Your task to perform on an android device: allow cookies in the chrome app Image 0: 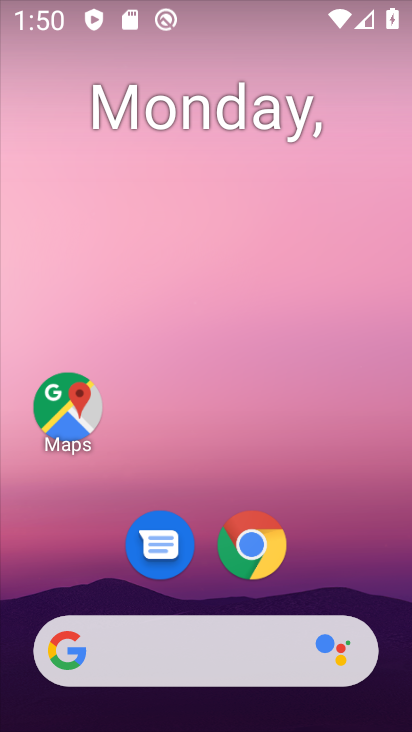
Step 0: click (257, 544)
Your task to perform on an android device: allow cookies in the chrome app Image 1: 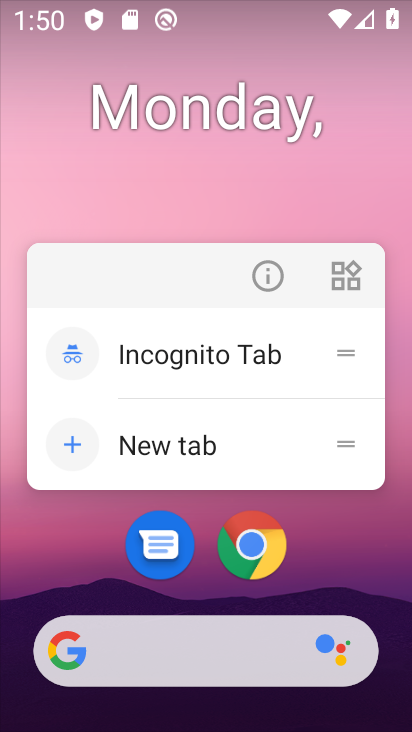
Step 1: click (258, 543)
Your task to perform on an android device: allow cookies in the chrome app Image 2: 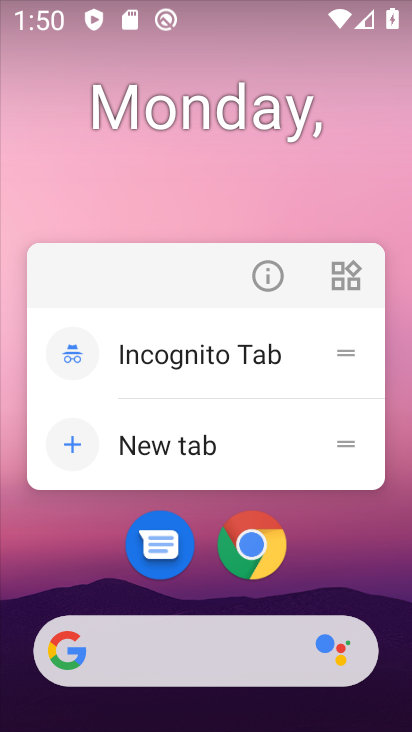
Step 2: click (248, 544)
Your task to perform on an android device: allow cookies in the chrome app Image 3: 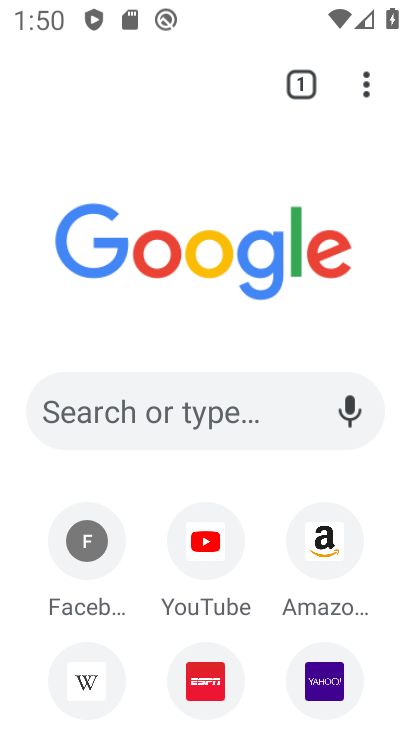
Step 3: drag from (361, 78) to (76, 591)
Your task to perform on an android device: allow cookies in the chrome app Image 4: 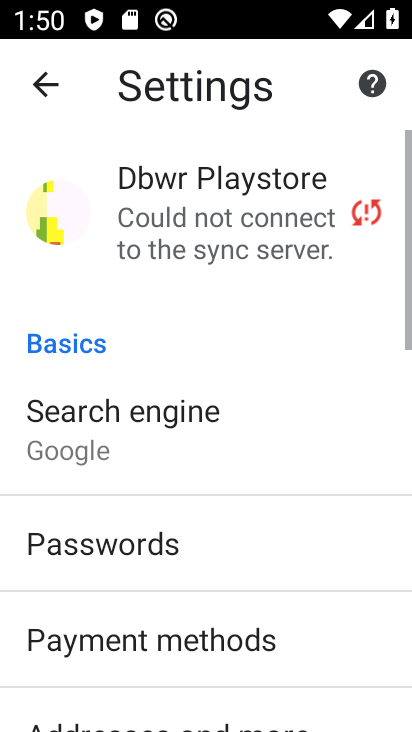
Step 4: drag from (155, 651) to (255, 126)
Your task to perform on an android device: allow cookies in the chrome app Image 5: 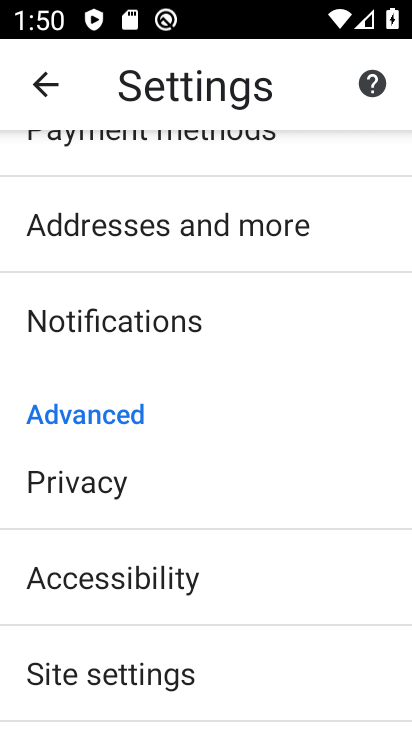
Step 5: click (128, 677)
Your task to perform on an android device: allow cookies in the chrome app Image 6: 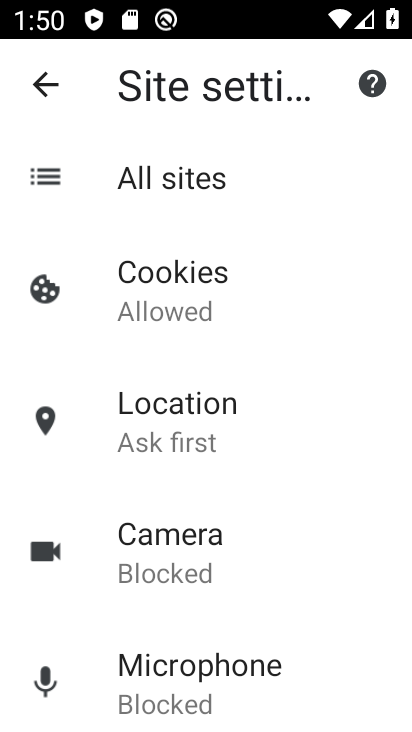
Step 6: click (156, 313)
Your task to perform on an android device: allow cookies in the chrome app Image 7: 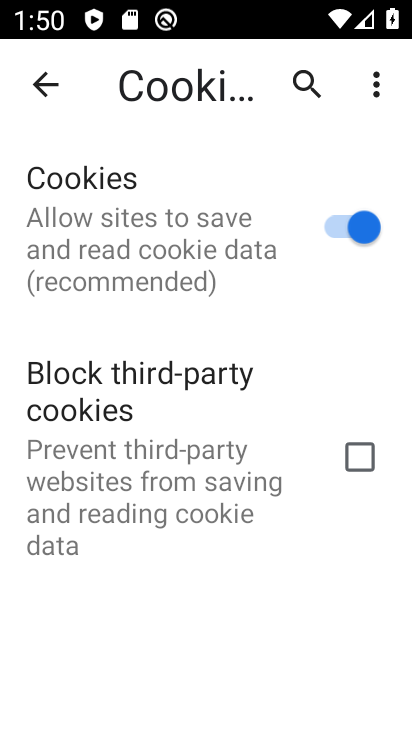
Step 7: task complete